Your task to perform on an android device: Show me recent news Image 0: 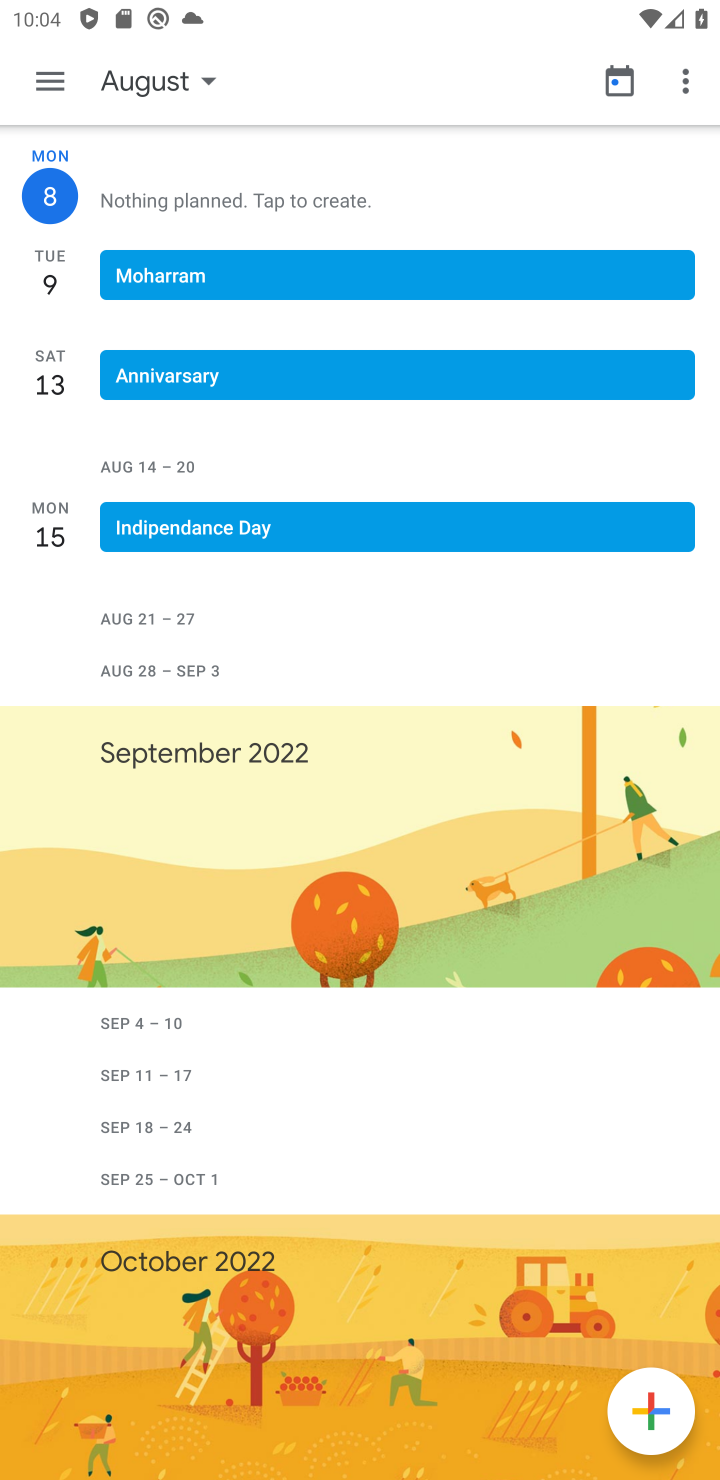
Step 0: press home button
Your task to perform on an android device: Show me recent news Image 1: 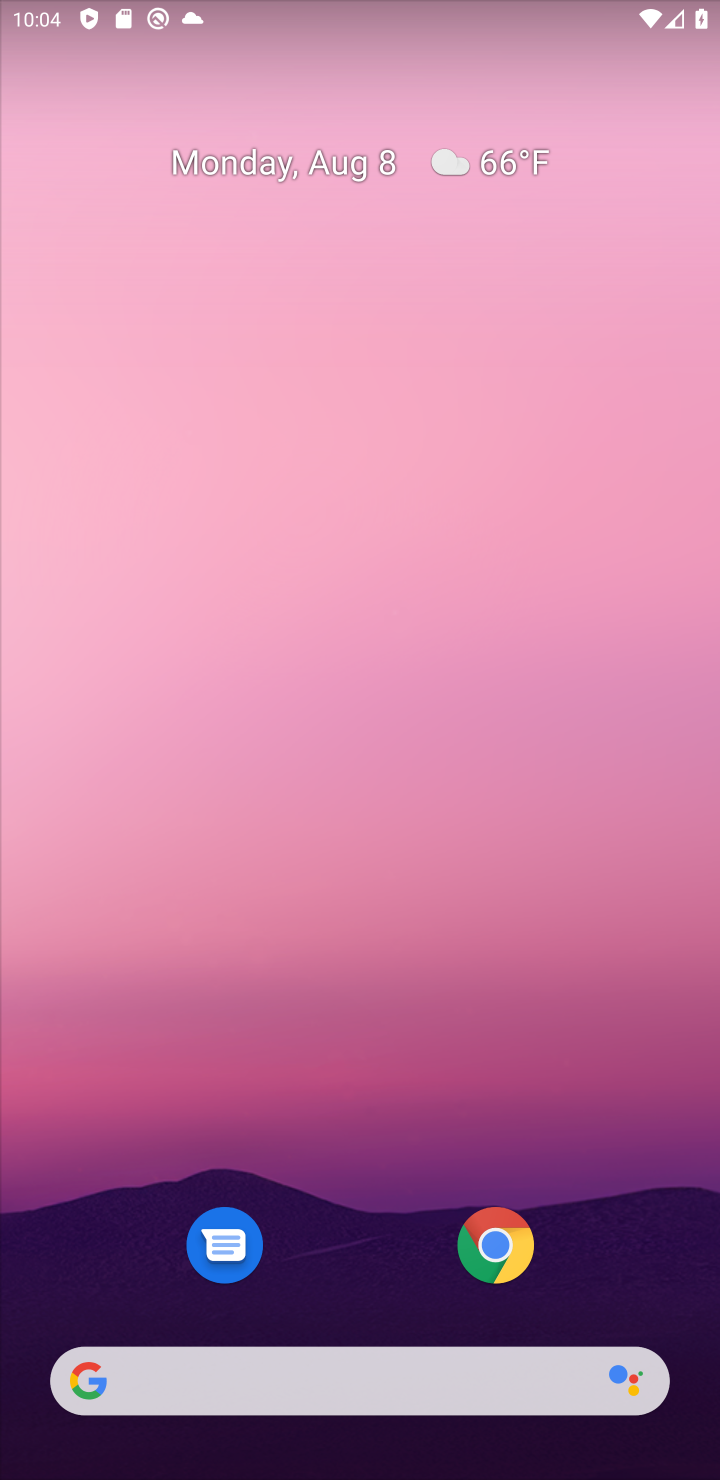
Step 1: drag from (30, 731) to (656, 792)
Your task to perform on an android device: Show me recent news Image 2: 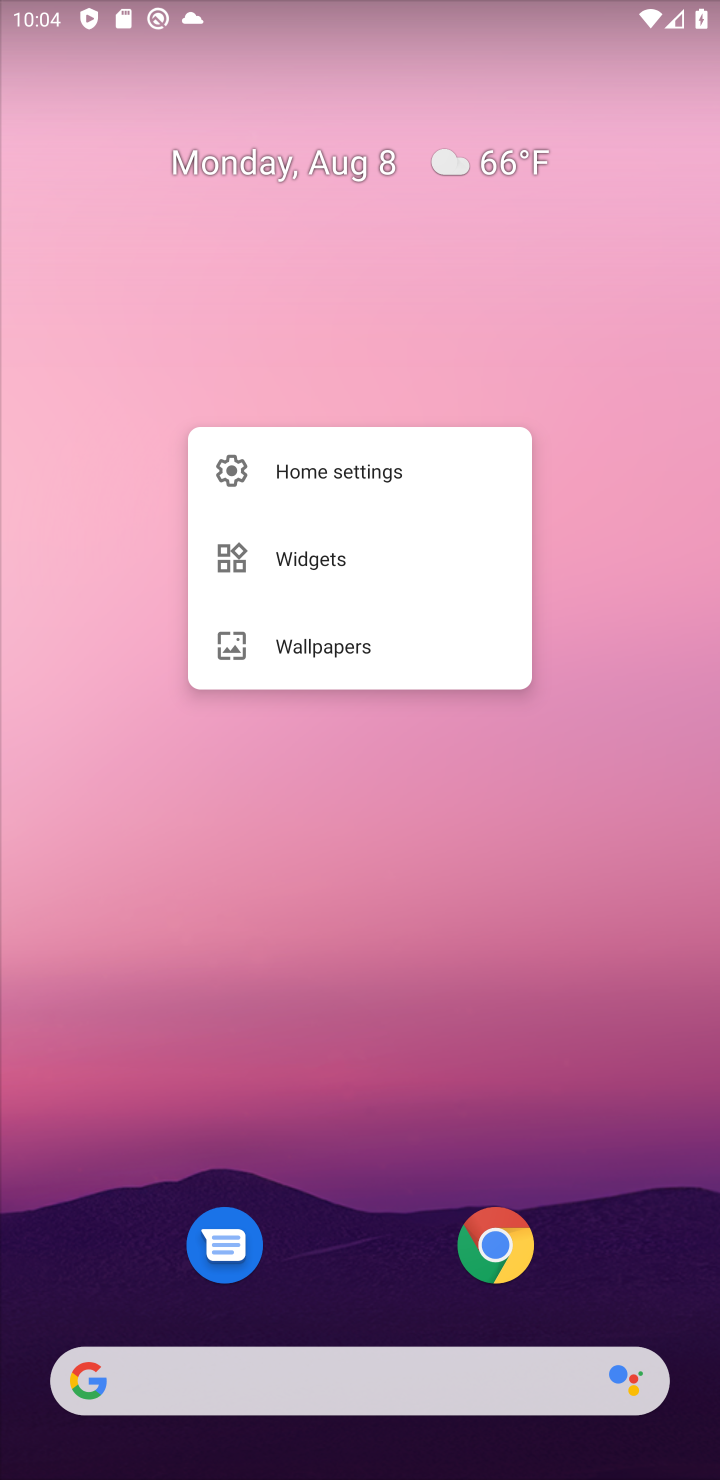
Step 2: click (335, 845)
Your task to perform on an android device: Show me recent news Image 3: 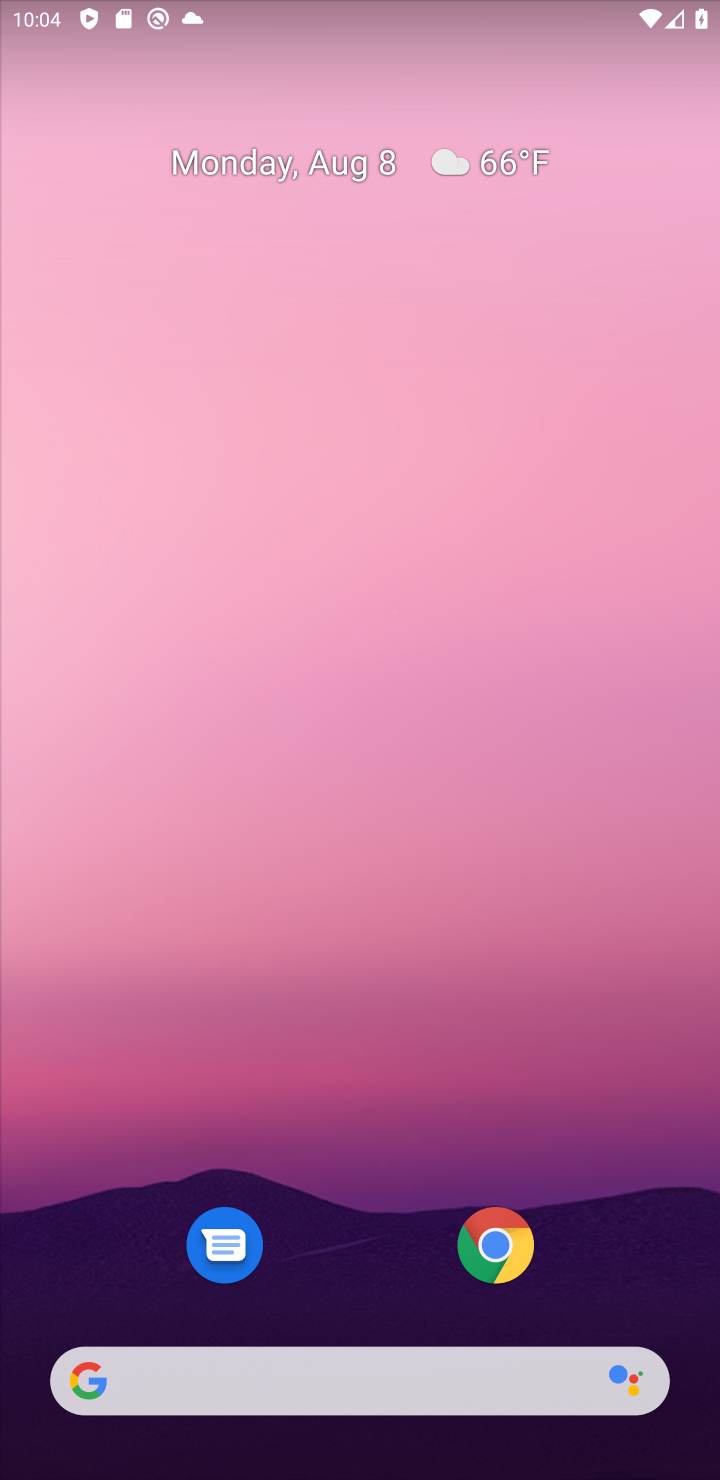
Step 3: drag from (13, 592) to (707, 747)
Your task to perform on an android device: Show me recent news Image 4: 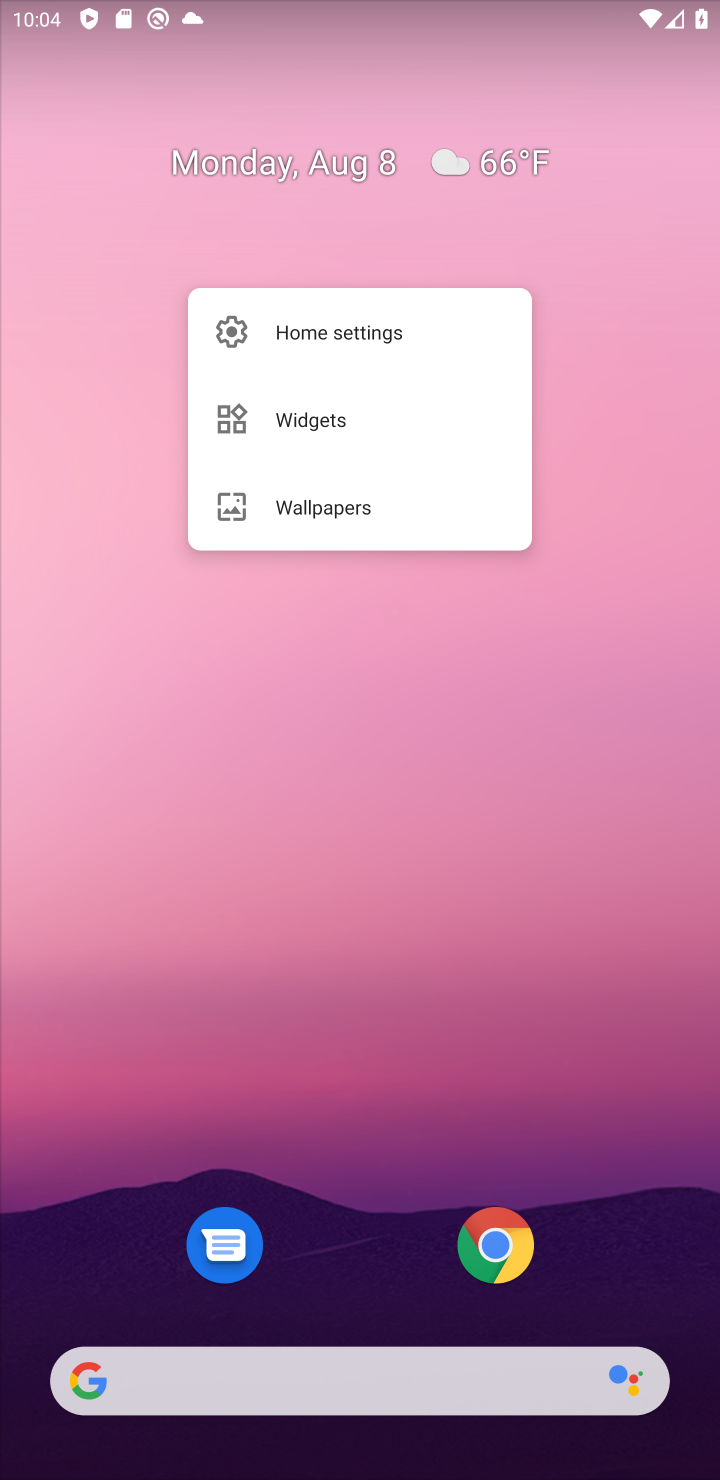
Step 4: click (569, 748)
Your task to perform on an android device: Show me recent news Image 5: 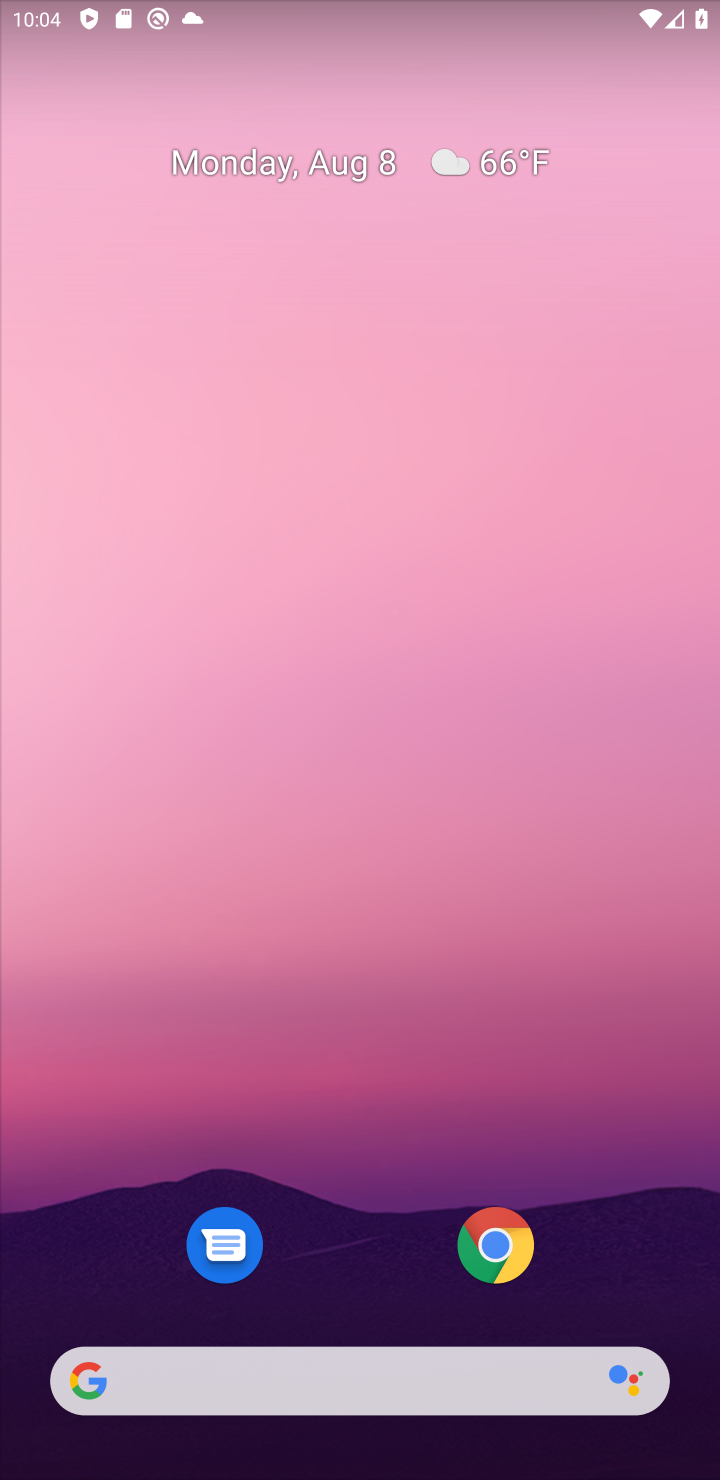
Step 5: click (347, 1378)
Your task to perform on an android device: Show me recent news Image 6: 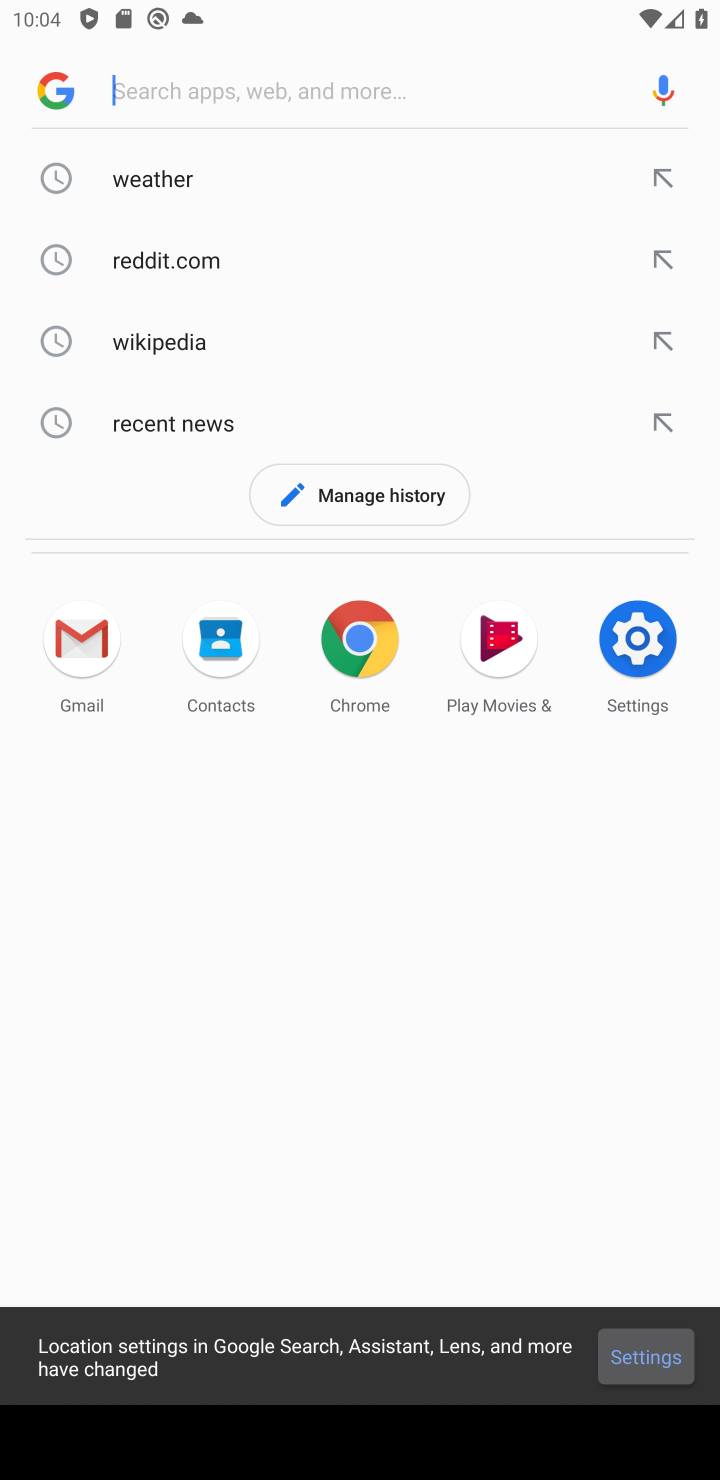
Step 6: click (187, 420)
Your task to perform on an android device: Show me recent news Image 7: 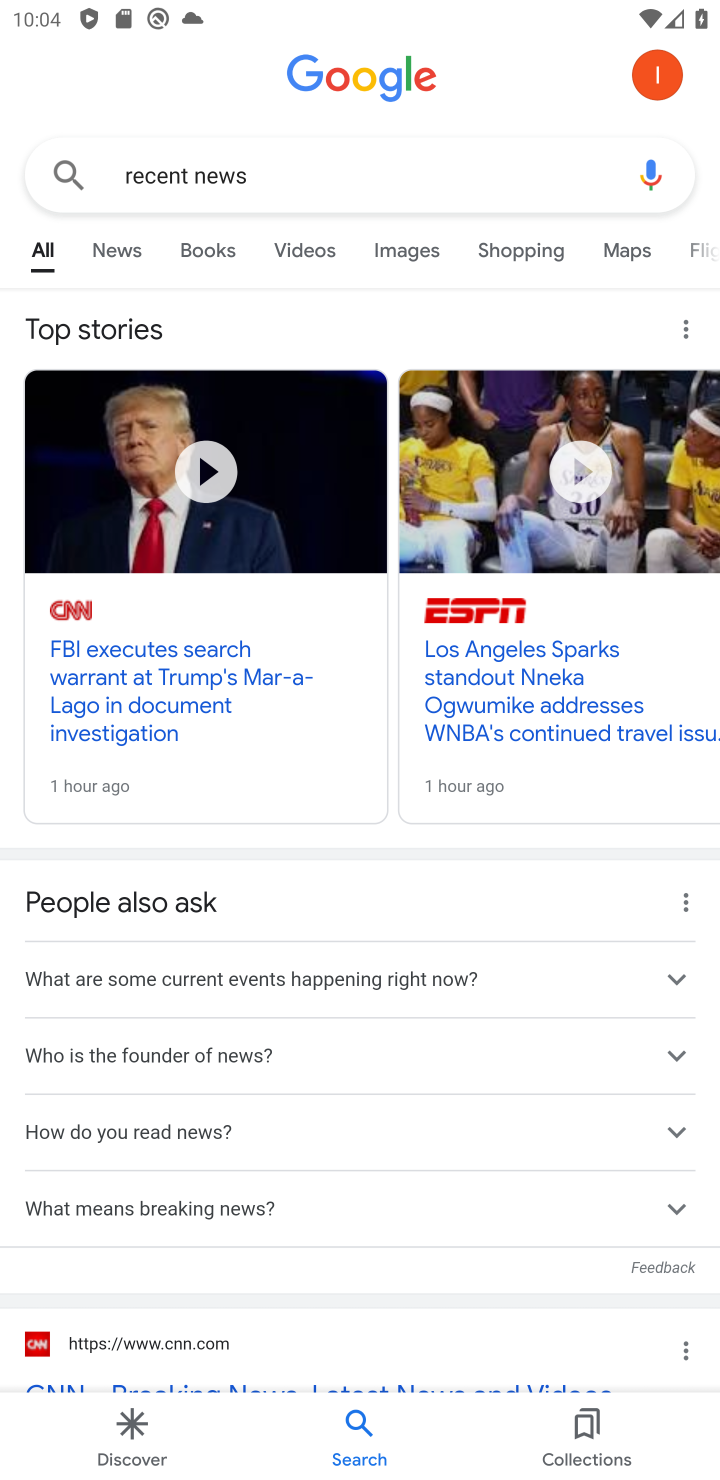
Step 7: task complete